Your task to perform on an android device: toggle priority inbox in the gmail app Image 0: 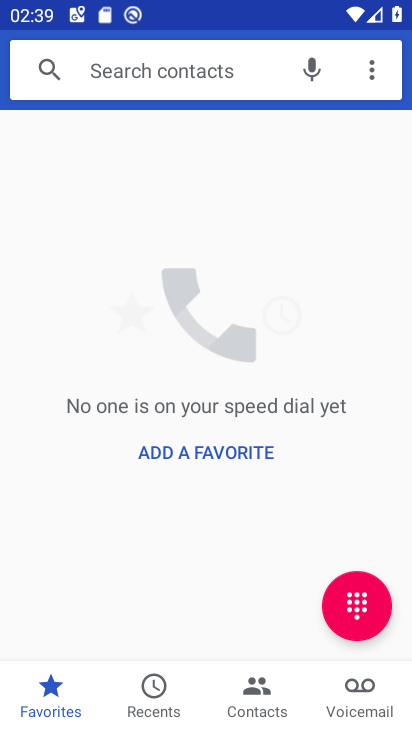
Step 0: press home button
Your task to perform on an android device: toggle priority inbox in the gmail app Image 1: 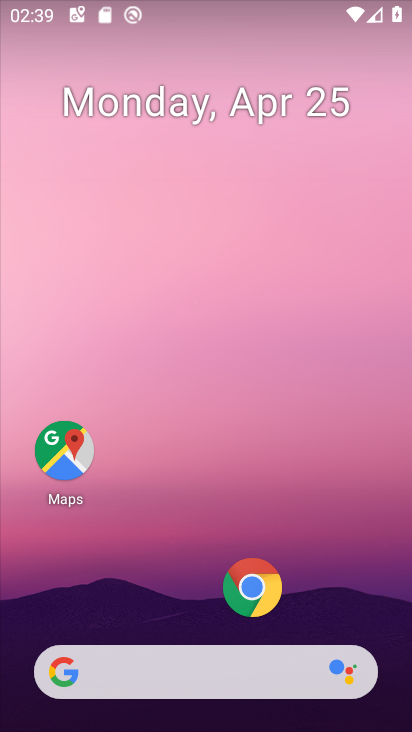
Step 1: drag from (206, 616) to (207, 151)
Your task to perform on an android device: toggle priority inbox in the gmail app Image 2: 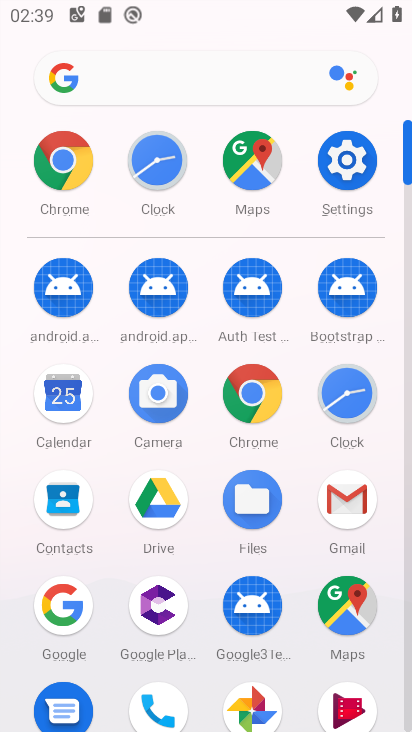
Step 2: click (343, 489)
Your task to perform on an android device: toggle priority inbox in the gmail app Image 3: 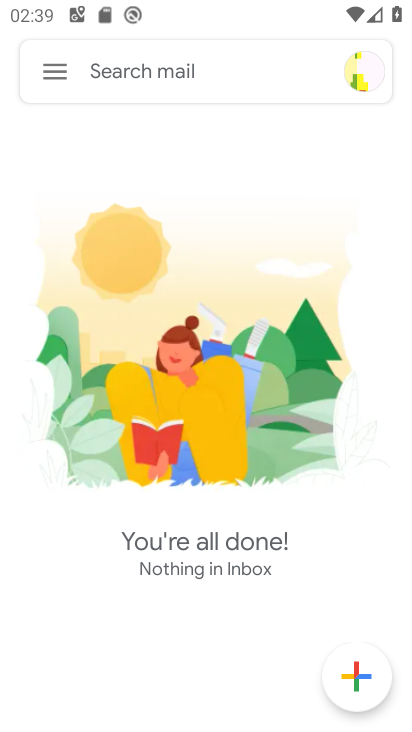
Step 3: click (55, 62)
Your task to perform on an android device: toggle priority inbox in the gmail app Image 4: 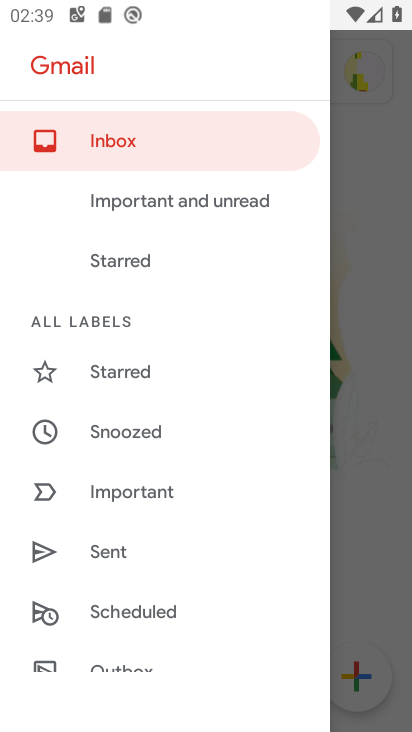
Step 4: drag from (166, 637) to (173, 124)
Your task to perform on an android device: toggle priority inbox in the gmail app Image 5: 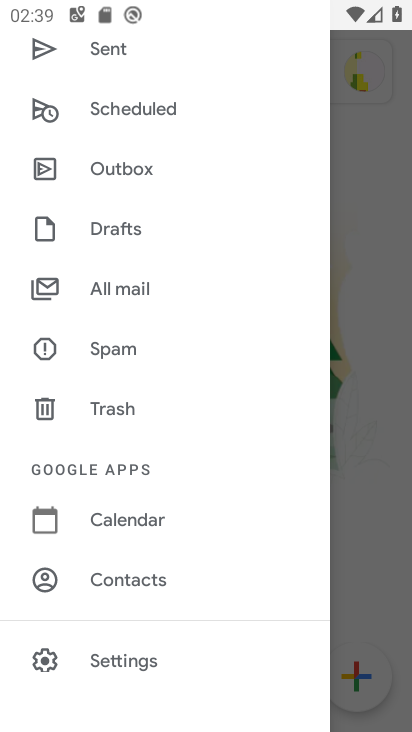
Step 5: click (157, 648)
Your task to perform on an android device: toggle priority inbox in the gmail app Image 6: 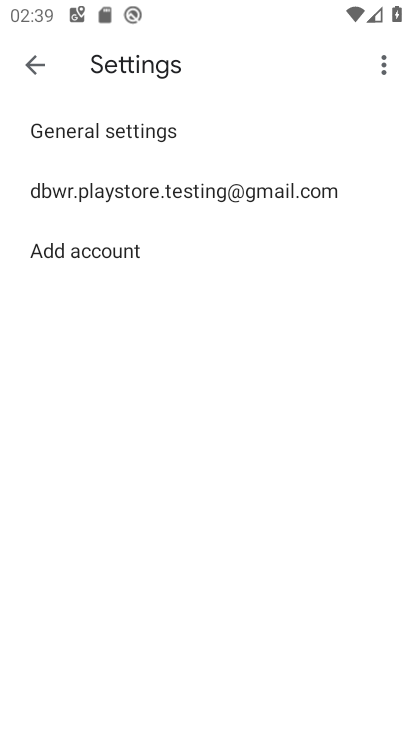
Step 6: click (206, 189)
Your task to perform on an android device: toggle priority inbox in the gmail app Image 7: 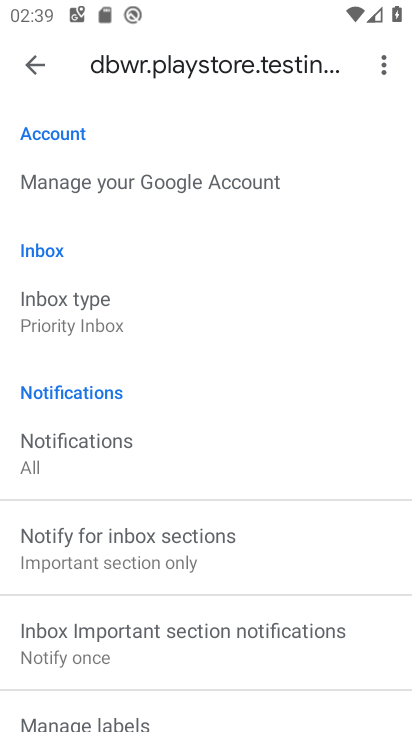
Step 7: click (129, 312)
Your task to perform on an android device: toggle priority inbox in the gmail app Image 8: 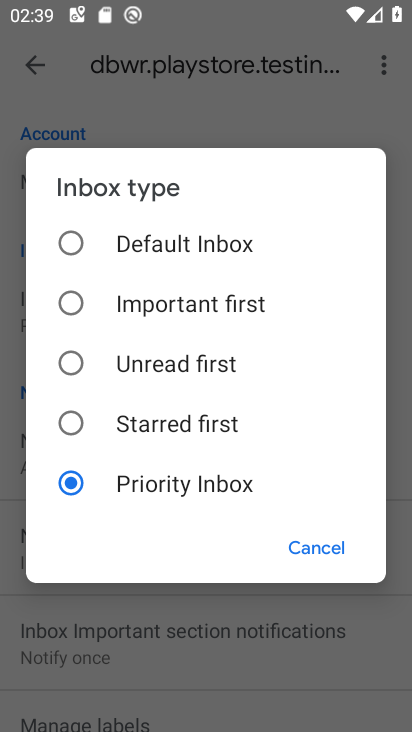
Step 8: click (74, 244)
Your task to perform on an android device: toggle priority inbox in the gmail app Image 9: 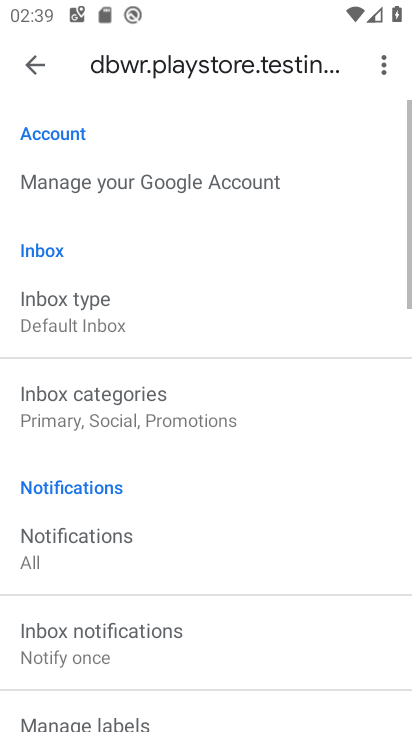
Step 9: task complete